Your task to perform on an android device: uninstall "Facebook Messenger" Image 0: 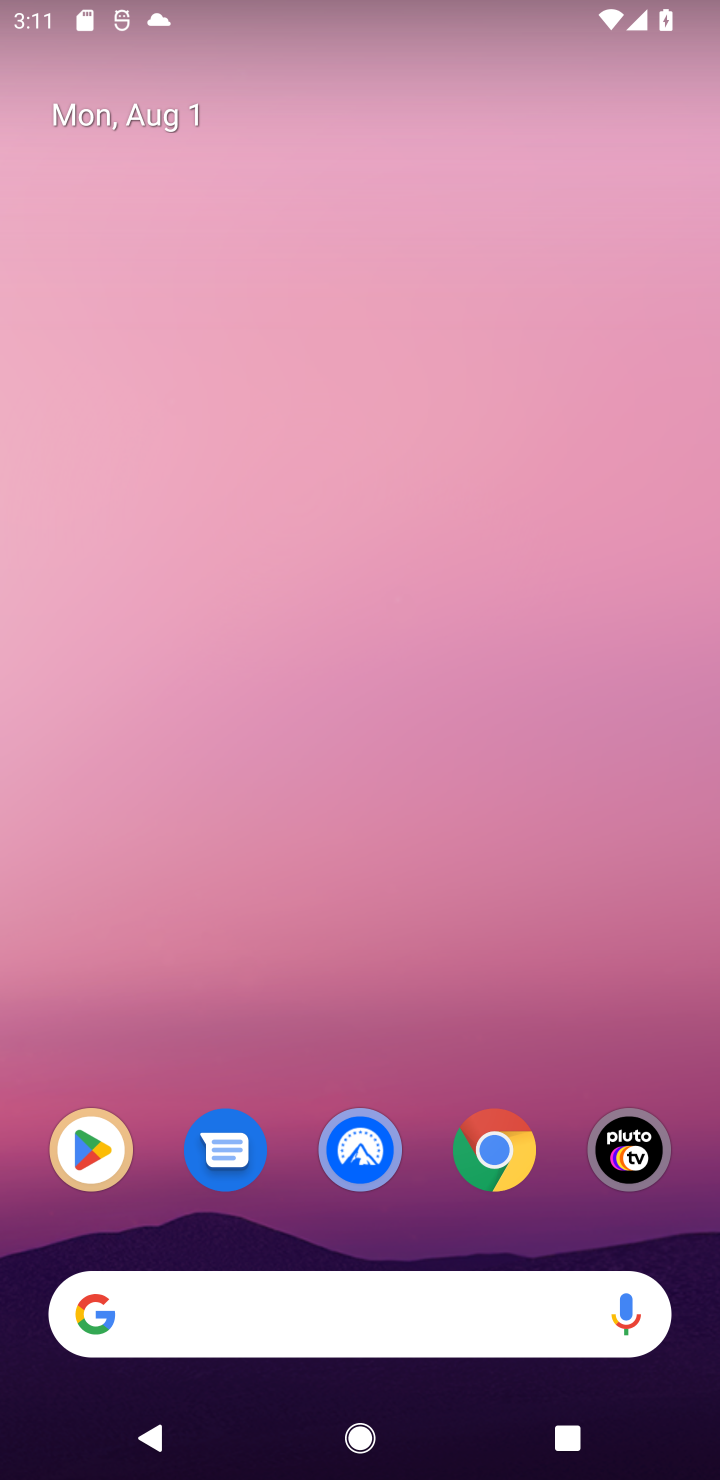
Step 0: drag from (399, 1226) to (455, 131)
Your task to perform on an android device: uninstall "Facebook Messenger" Image 1: 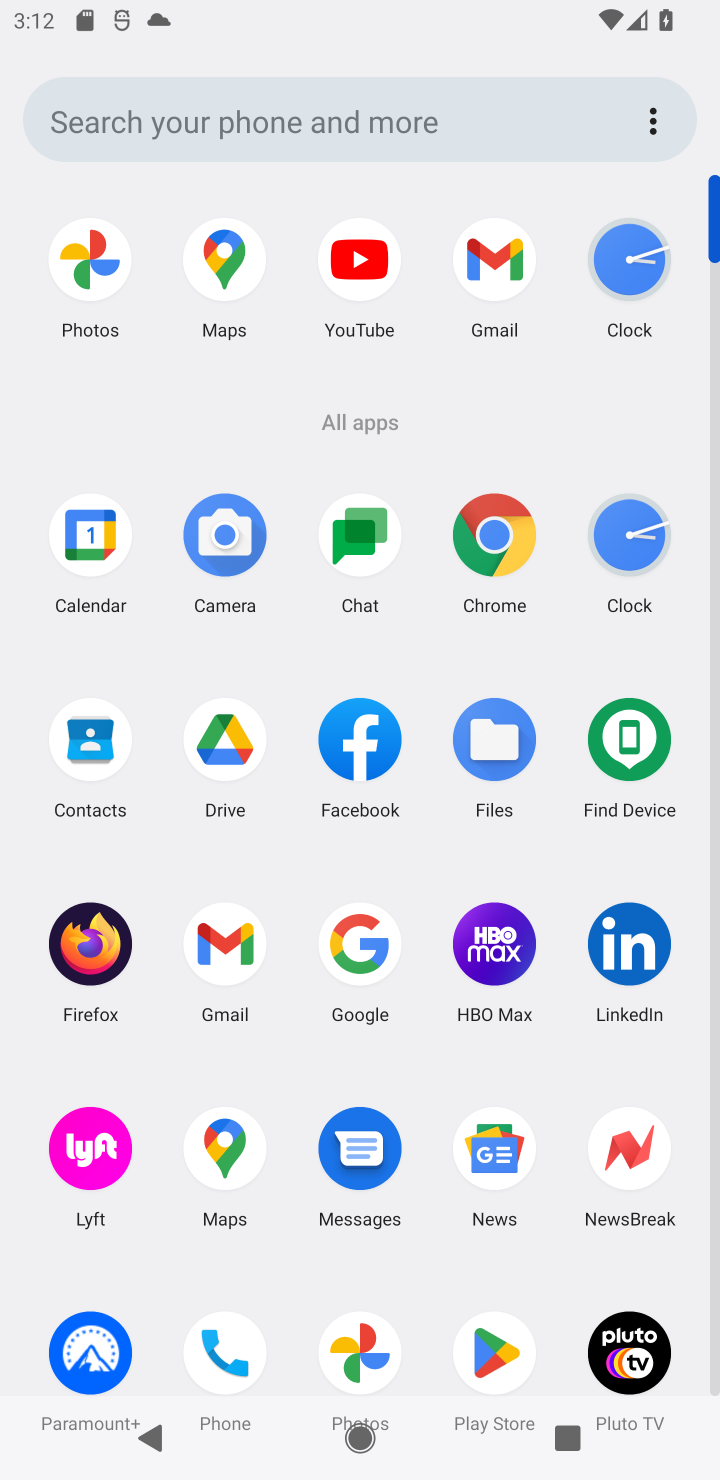
Step 1: task complete